Your task to perform on an android device: Open wifi settings Image 0: 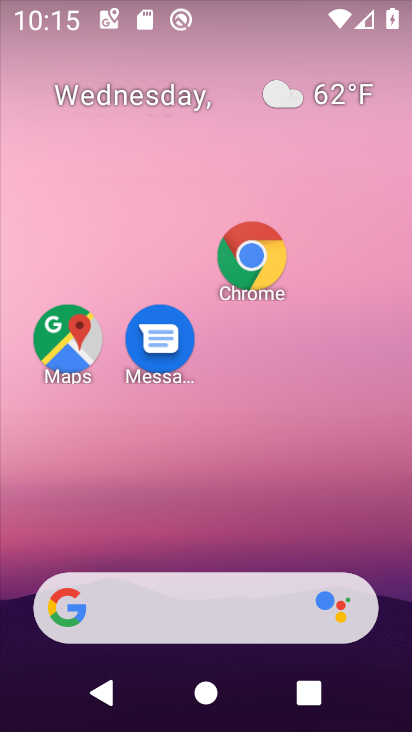
Step 0: drag from (259, 501) to (227, 52)
Your task to perform on an android device: Open wifi settings Image 1: 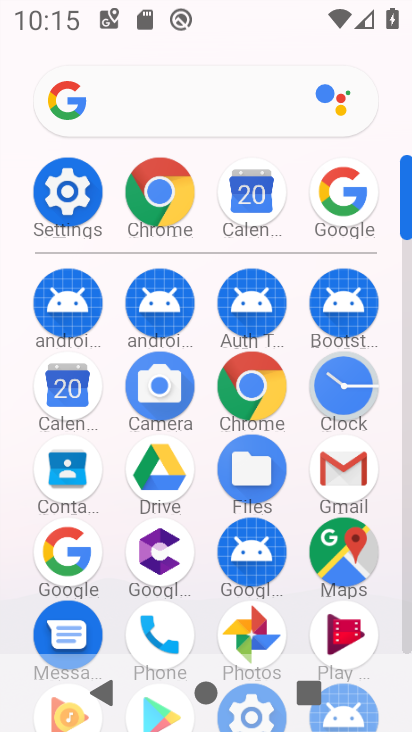
Step 1: click (66, 200)
Your task to perform on an android device: Open wifi settings Image 2: 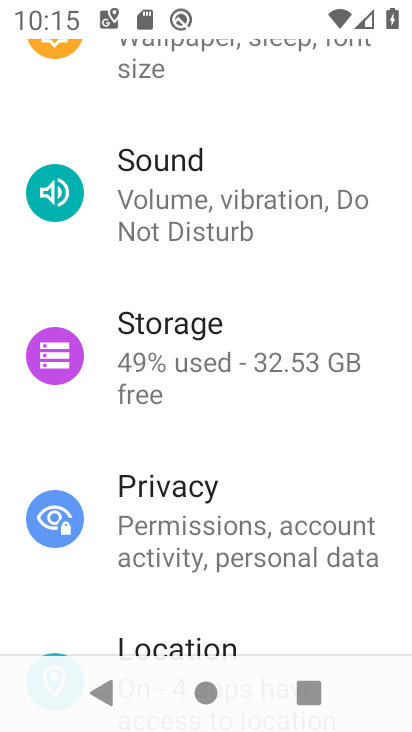
Step 2: drag from (214, 140) to (242, 585)
Your task to perform on an android device: Open wifi settings Image 3: 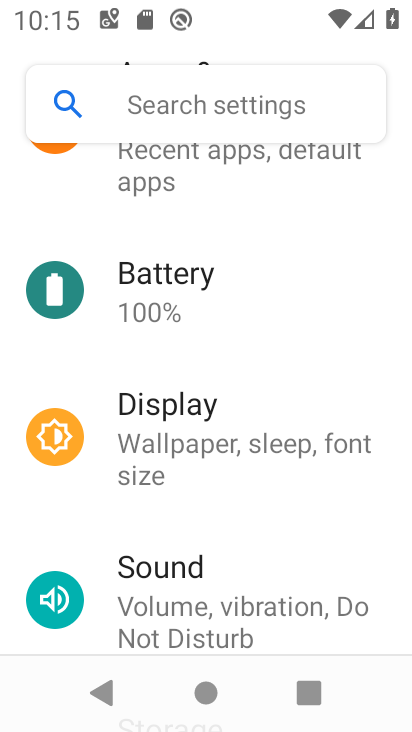
Step 3: drag from (132, 231) to (186, 581)
Your task to perform on an android device: Open wifi settings Image 4: 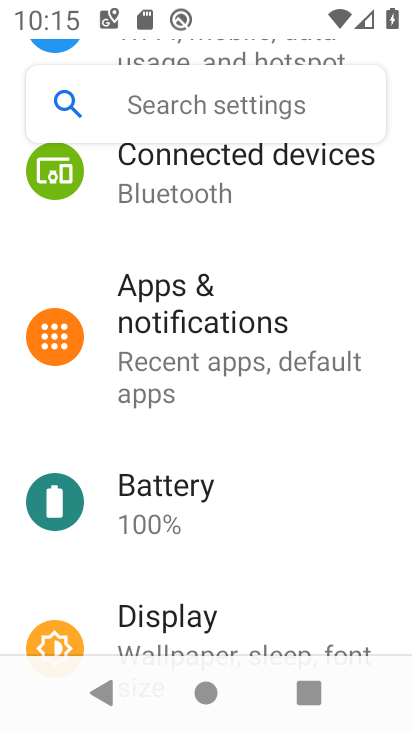
Step 4: drag from (112, 202) to (225, 691)
Your task to perform on an android device: Open wifi settings Image 5: 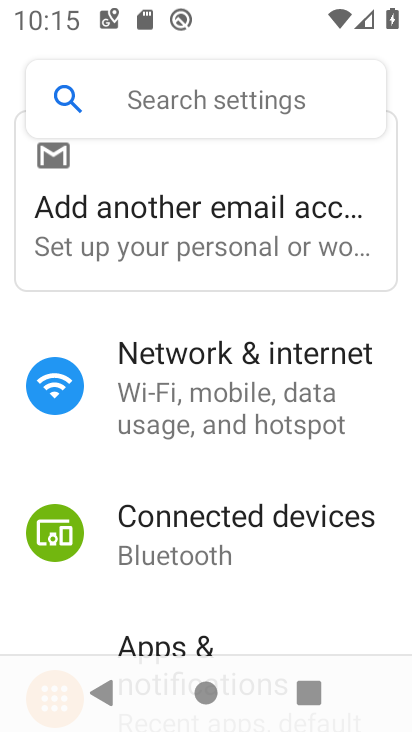
Step 5: click (190, 379)
Your task to perform on an android device: Open wifi settings Image 6: 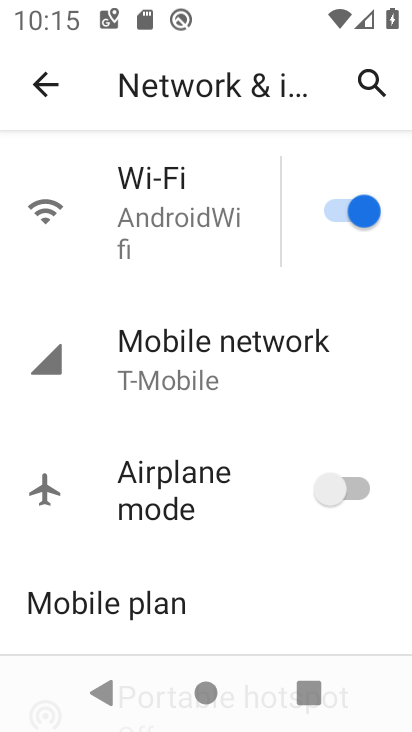
Step 6: click (139, 208)
Your task to perform on an android device: Open wifi settings Image 7: 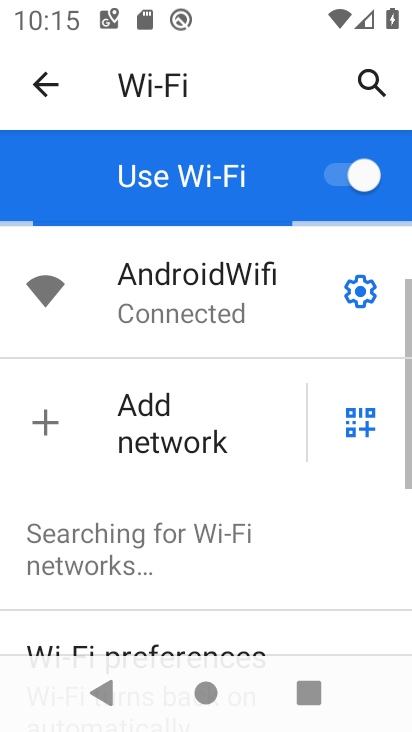
Step 7: click (360, 290)
Your task to perform on an android device: Open wifi settings Image 8: 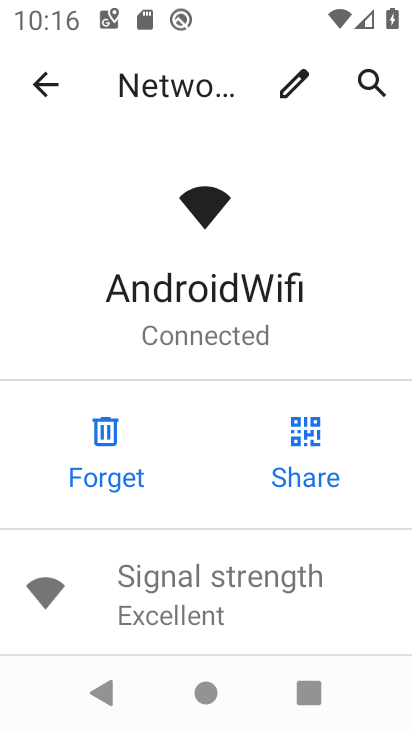
Step 8: task complete